Your task to perform on an android device: Search for seafood restaurants on Google Maps Image 0: 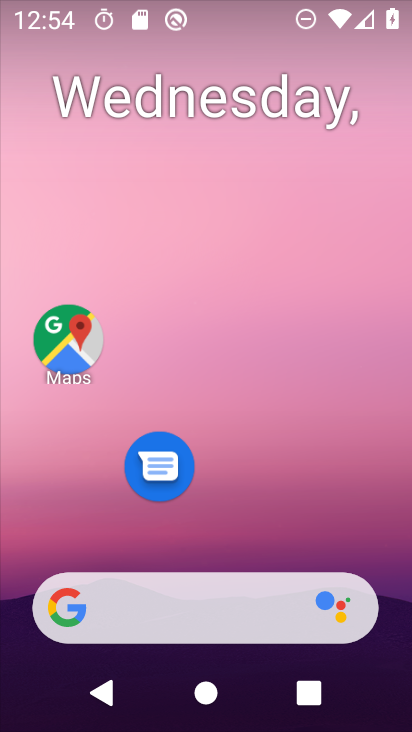
Step 0: click (71, 348)
Your task to perform on an android device: Search for seafood restaurants on Google Maps Image 1: 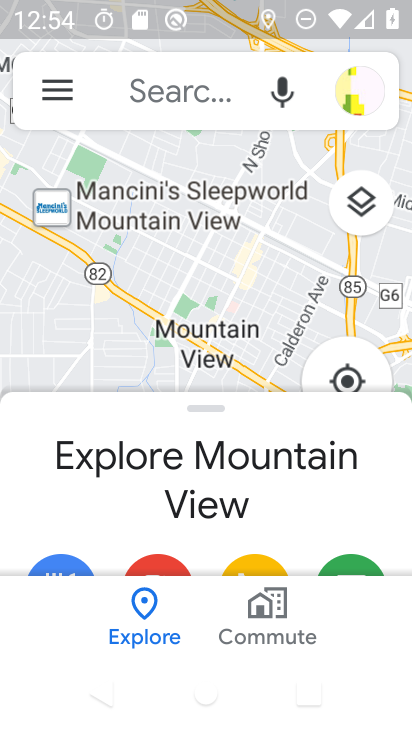
Step 1: click (185, 108)
Your task to perform on an android device: Search for seafood restaurants on Google Maps Image 2: 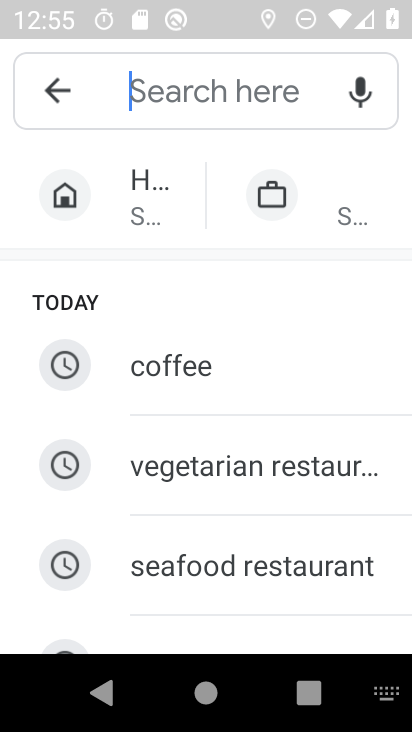
Step 2: click (244, 557)
Your task to perform on an android device: Search for seafood restaurants on Google Maps Image 3: 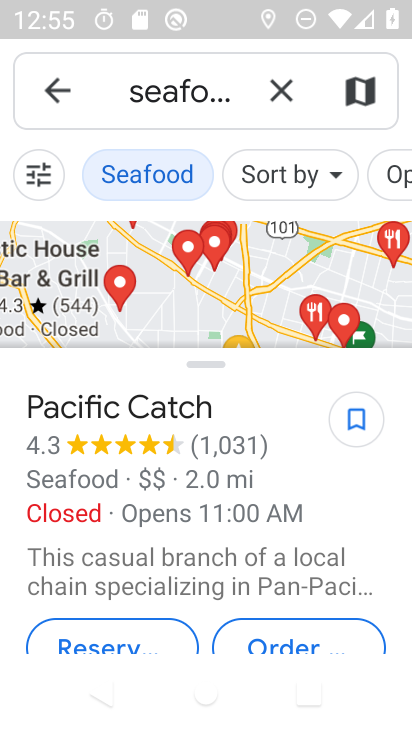
Step 3: task complete